Your task to perform on an android device: turn on wifi Image 0: 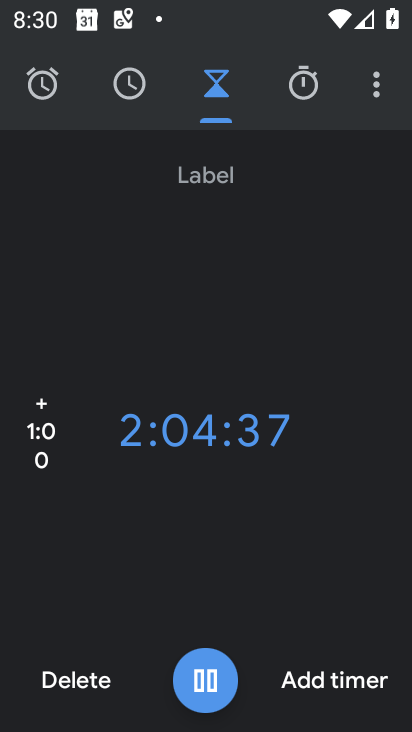
Step 0: press home button
Your task to perform on an android device: turn on wifi Image 1: 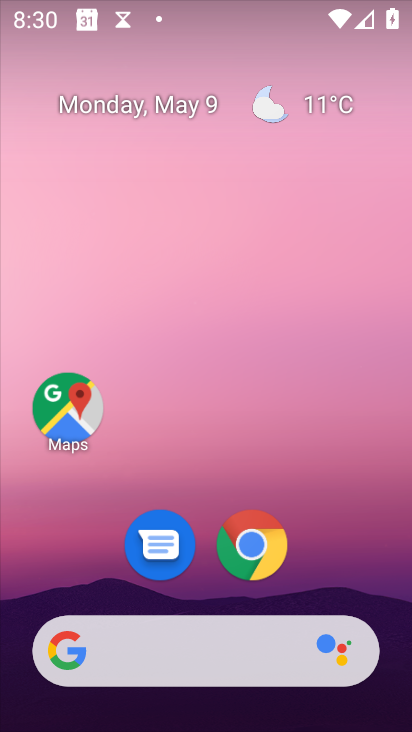
Step 1: drag from (215, 718) to (211, 172)
Your task to perform on an android device: turn on wifi Image 2: 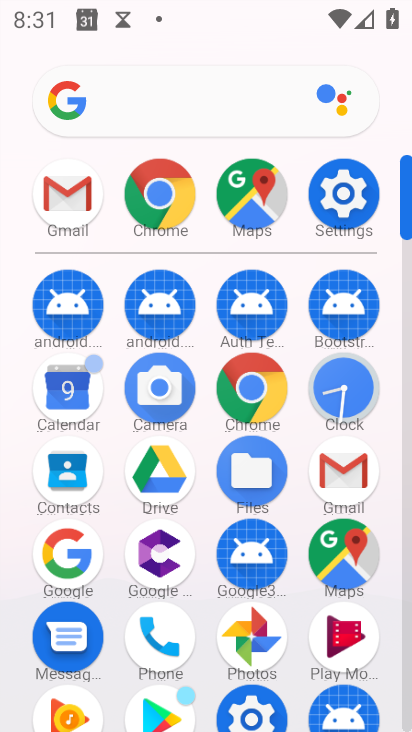
Step 2: click (333, 199)
Your task to perform on an android device: turn on wifi Image 3: 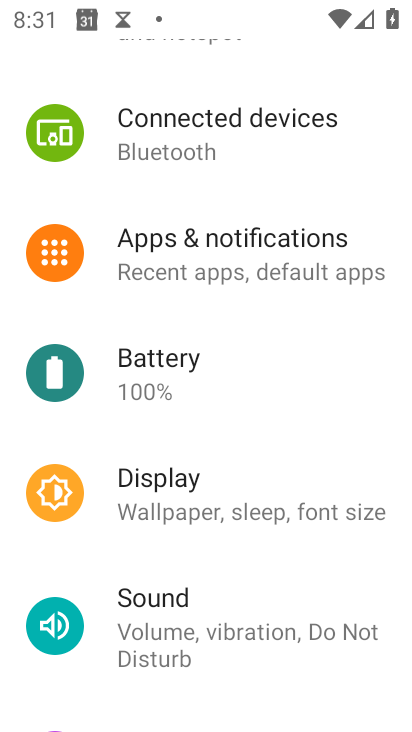
Step 3: drag from (358, 140) to (313, 588)
Your task to perform on an android device: turn on wifi Image 4: 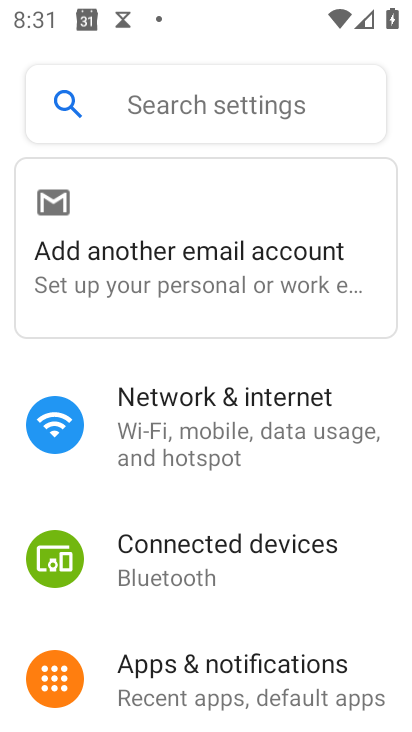
Step 4: click (222, 413)
Your task to perform on an android device: turn on wifi Image 5: 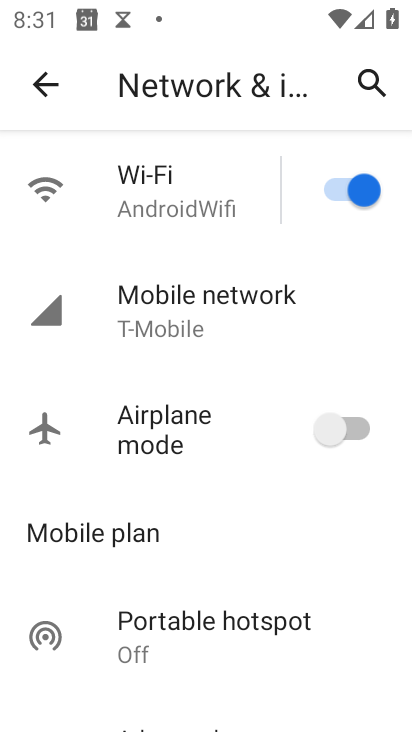
Step 5: task complete